Your task to perform on an android device: Go to Yahoo.com Image 0: 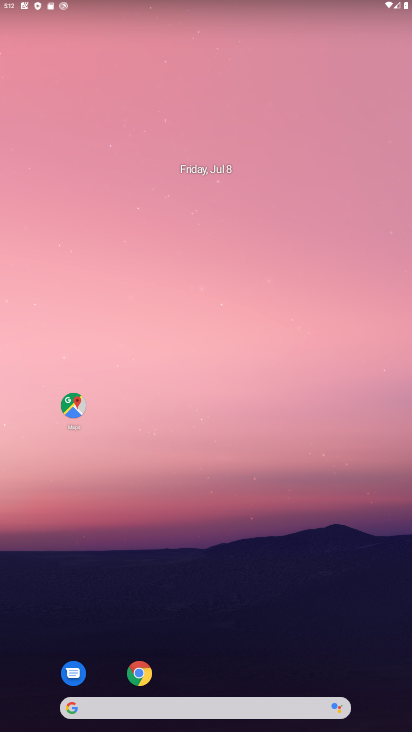
Step 0: click (135, 675)
Your task to perform on an android device: Go to Yahoo.com Image 1: 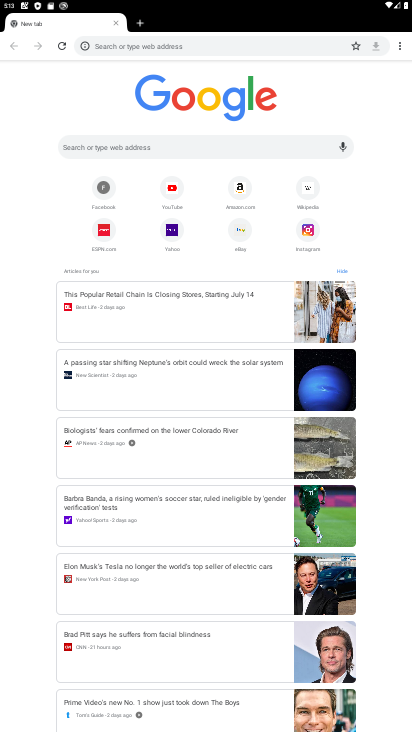
Step 1: click (171, 234)
Your task to perform on an android device: Go to Yahoo.com Image 2: 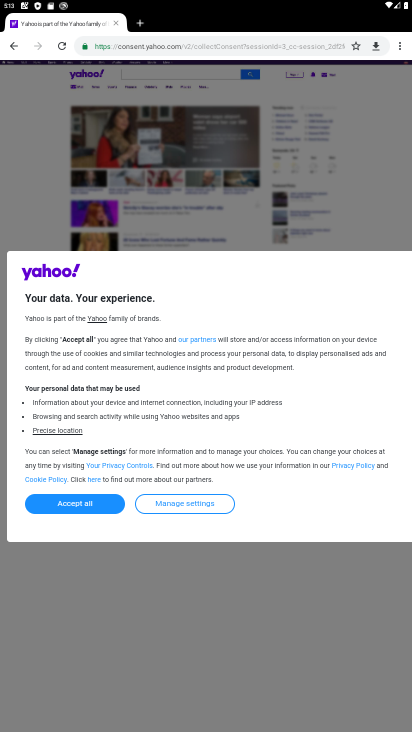
Step 2: task complete